Your task to perform on an android device: Play the last video I watched on Youtube Image 0: 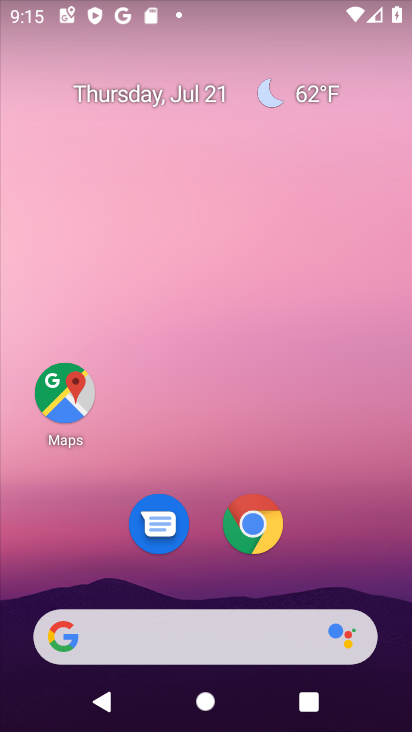
Step 0: press home button
Your task to perform on an android device: Play the last video I watched on Youtube Image 1: 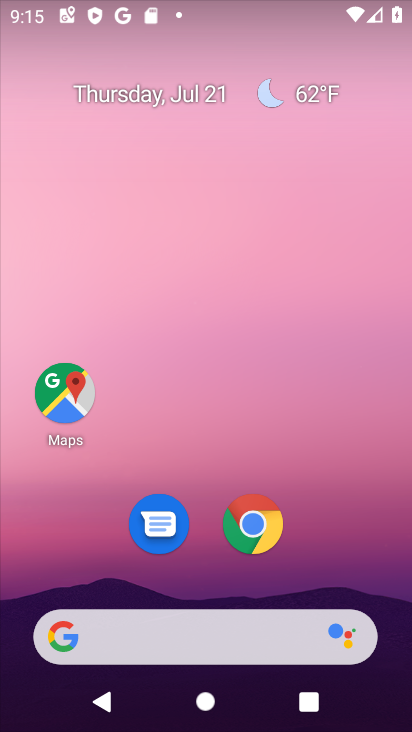
Step 1: drag from (187, 639) to (327, 108)
Your task to perform on an android device: Play the last video I watched on Youtube Image 2: 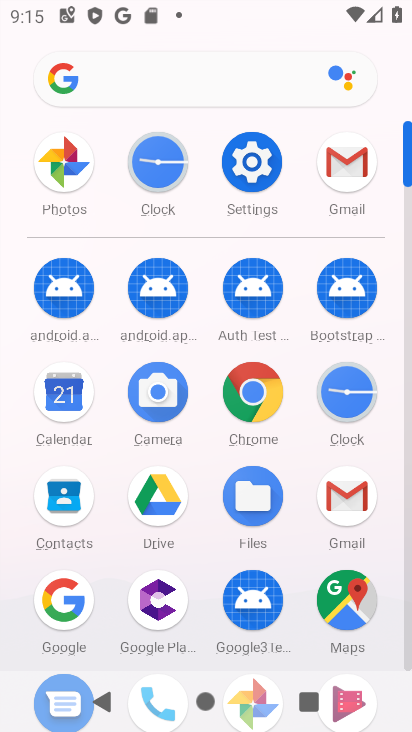
Step 2: drag from (298, 596) to (356, 177)
Your task to perform on an android device: Play the last video I watched on Youtube Image 3: 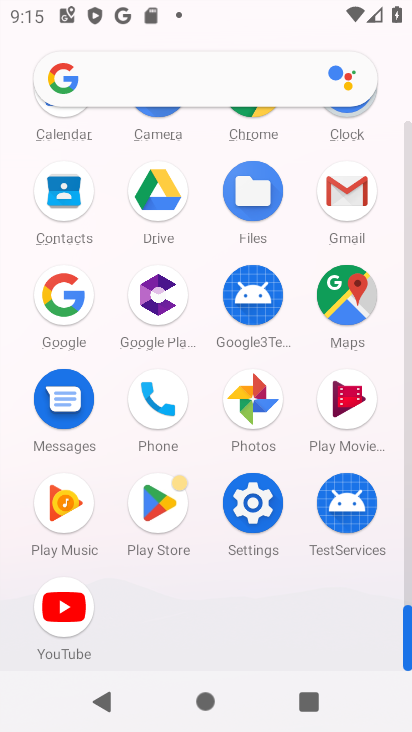
Step 3: click (65, 614)
Your task to perform on an android device: Play the last video I watched on Youtube Image 4: 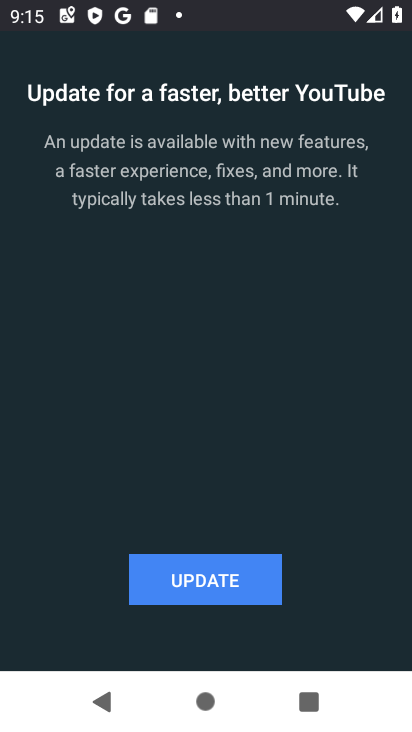
Step 4: click (189, 575)
Your task to perform on an android device: Play the last video I watched on Youtube Image 5: 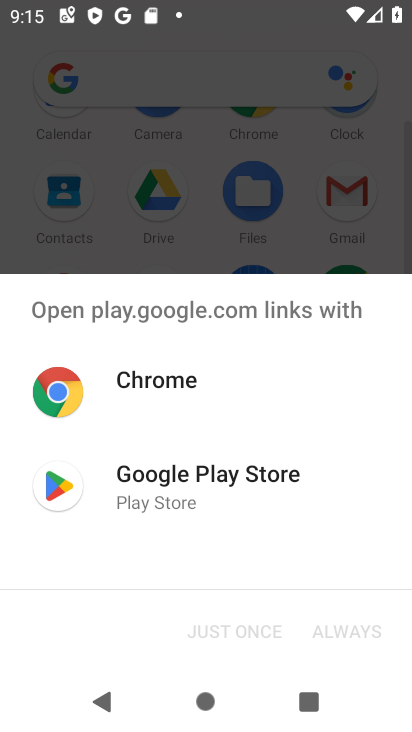
Step 5: click (198, 482)
Your task to perform on an android device: Play the last video I watched on Youtube Image 6: 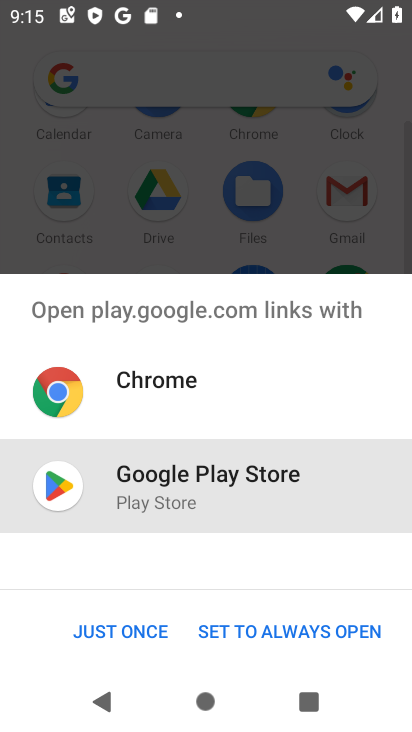
Step 6: click (152, 637)
Your task to perform on an android device: Play the last video I watched on Youtube Image 7: 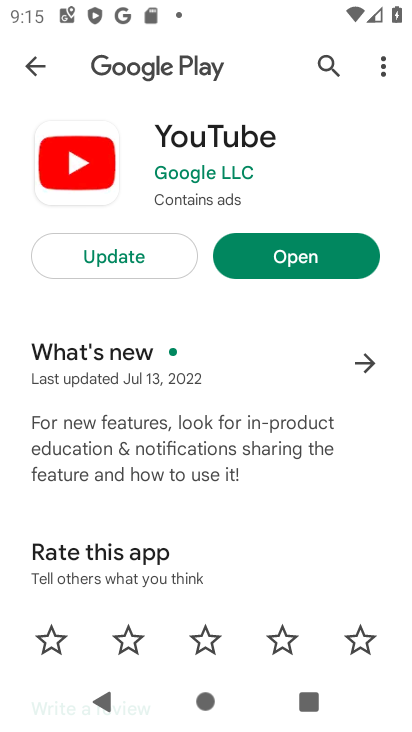
Step 7: click (151, 257)
Your task to perform on an android device: Play the last video I watched on Youtube Image 8: 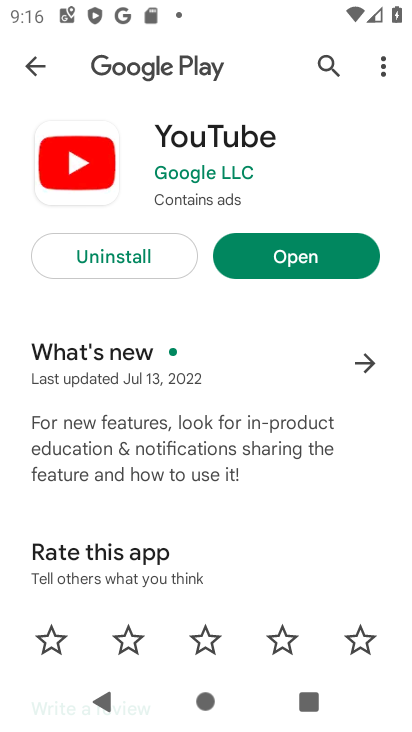
Step 8: click (280, 236)
Your task to perform on an android device: Play the last video I watched on Youtube Image 9: 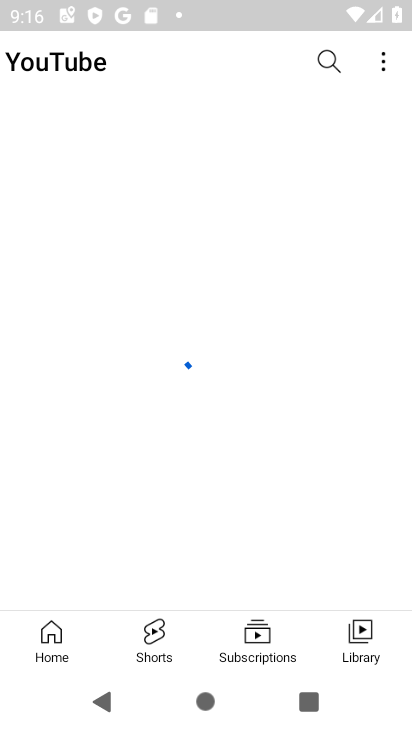
Step 9: click (364, 634)
Your task to perform on an android device: Play the last video I watched on Youtube Image 10: 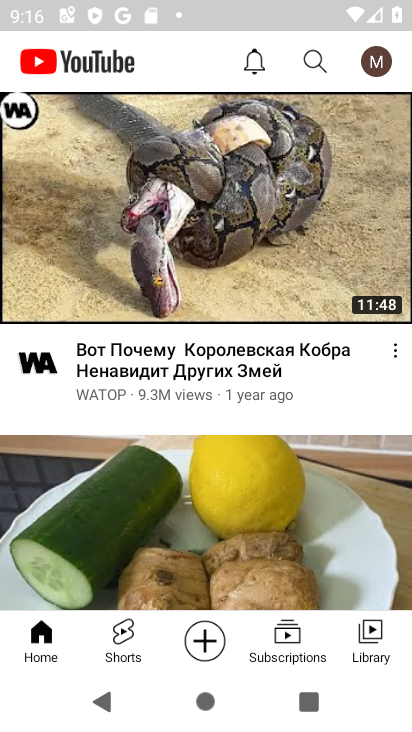
Step 10: click (364, 634)
Your task to perform on an android device: Play the last video I watched on Youtube Image 11: 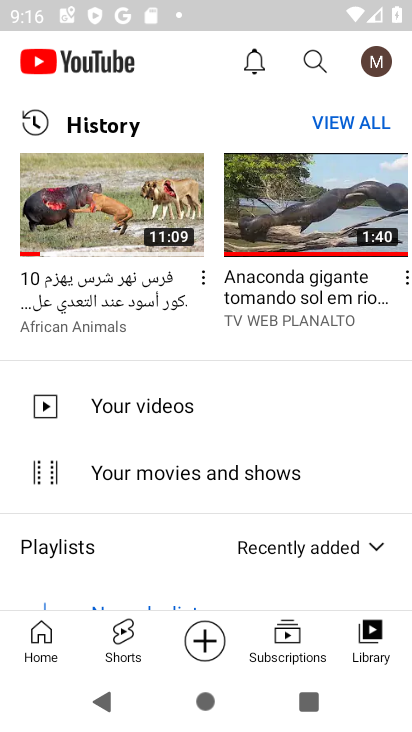
Step 11: click (117, 191)
Your task to perform on an android device: Play the last video I watched on Youtube Image 12: 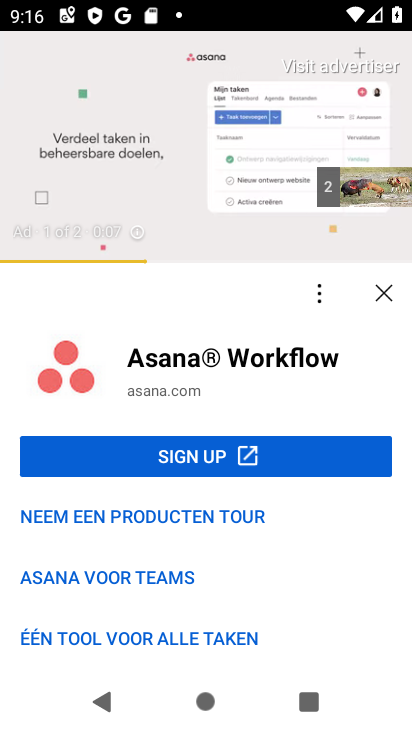
Step 12: click (383, 290)
Your task to perform on an android device: Play the last video I watched on Youtube Image 13: 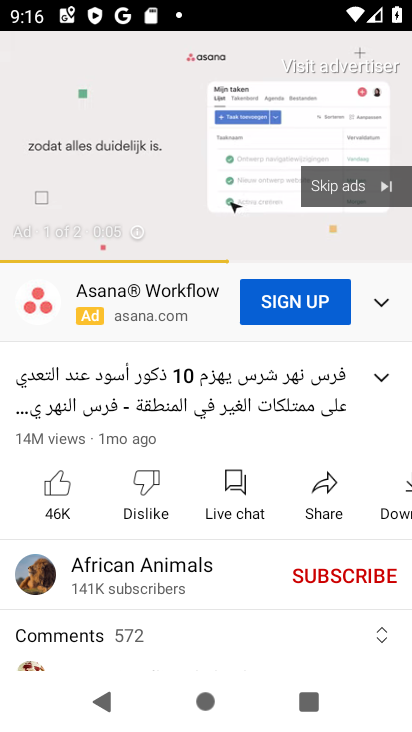
Step 13: click (335, 191)
Your task to perform on an android device: Play the last video I watched on Youtube Image 14: 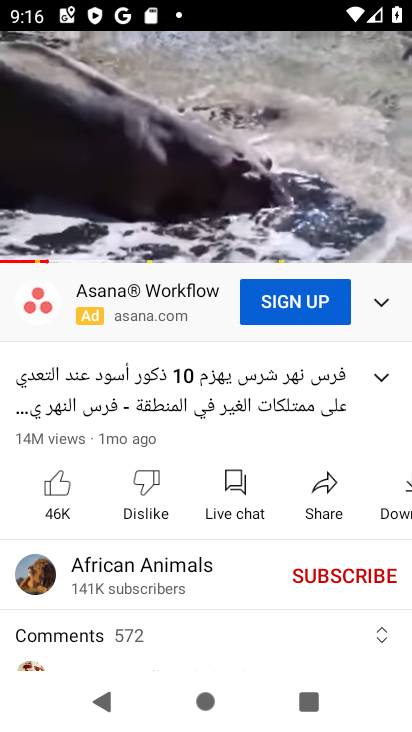
Step 14: click (281, 153)
Your task to perform on an android device: Play the last video I watched on Youtube Image 15: 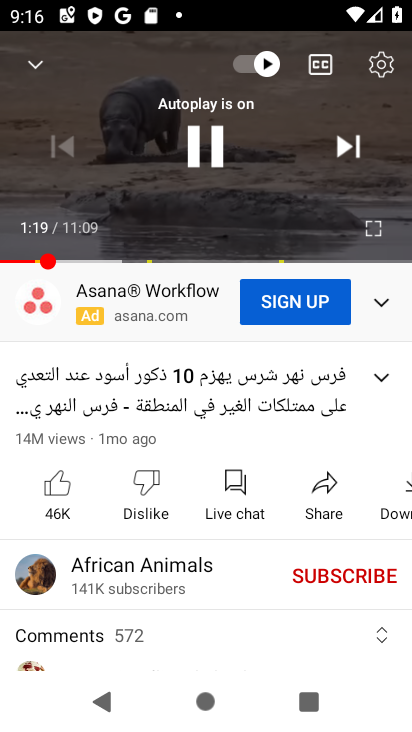
Step 15: click (214, 154)
Your task to perform on an android device: Play the last video I watched on Youtube Image 16: 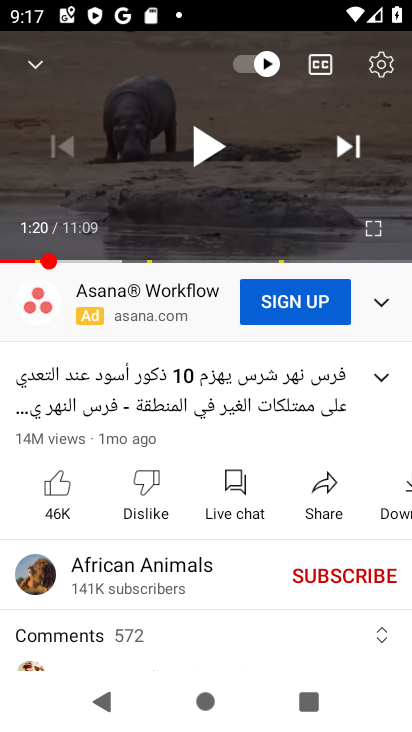
Step 16: task complete